Your task to perform on an android device: Go to display settings Image 0: 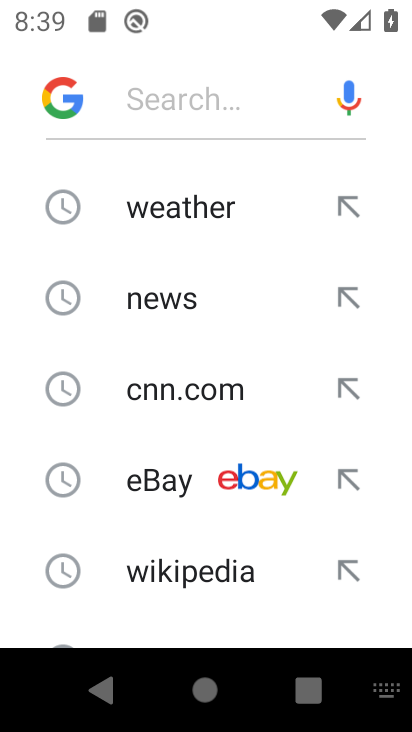
Step 0: press home button
Your task to perform on an android device: Go to display settings Image 1: 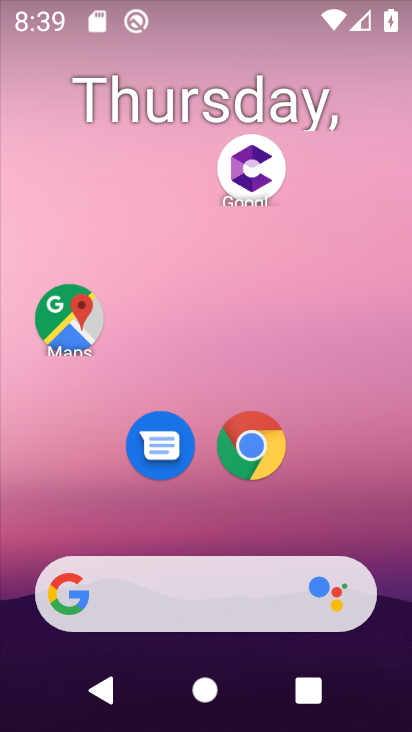
Step 1: drag from (188, 406) to (214, 58)
Your task to perform on an android device: Go to display settings Image 2: 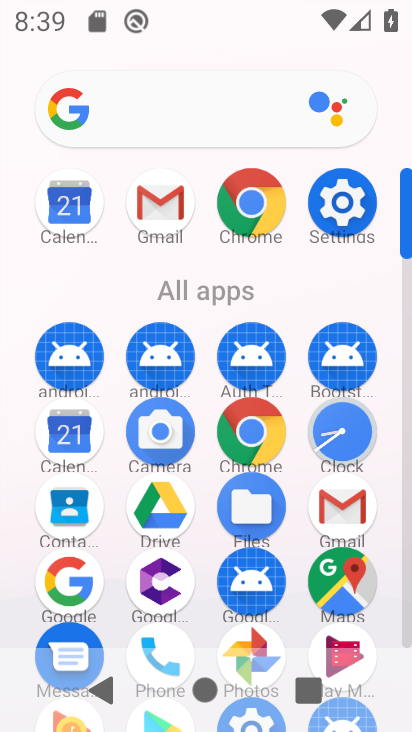
Step 2: click (355, 231)
Your task to perform on an android device: Go to display settings Image 3: 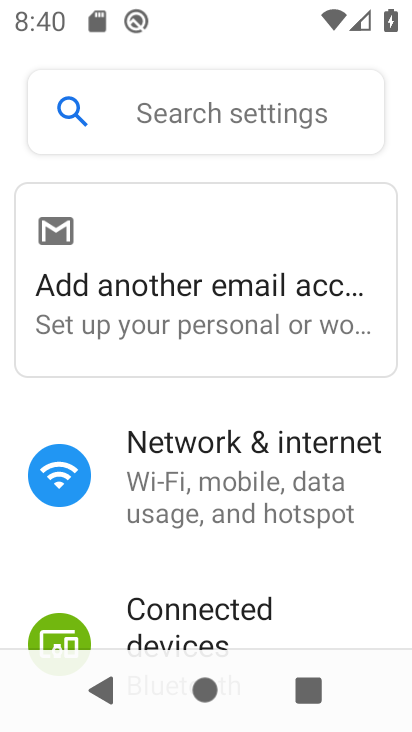
Step 3: drag from (229, 566) to (276, 130)
Your task to perform on an android device: Go to display settings Image 4: 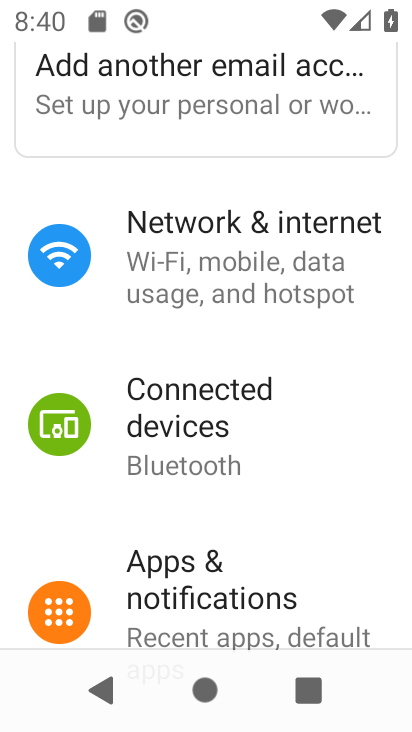
Step 4: drag from (226, 442) to (255, 79)
Your task to perform on an android device: Go to display settings Image 5: 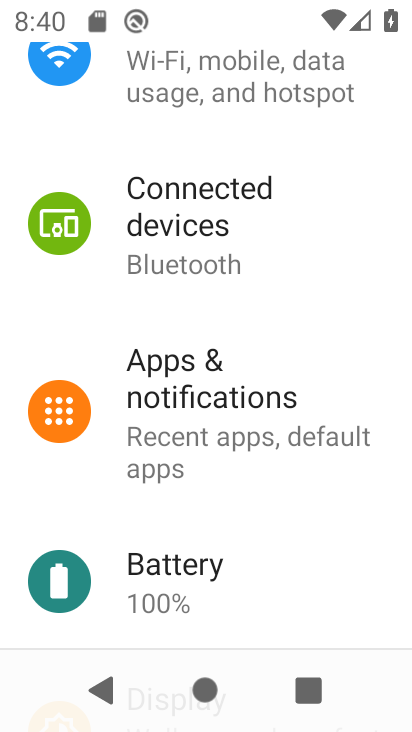
Step 5: drag from (200, 441) to (247, 121)
Your task to perform on an android device: Go to display settings Image 6: 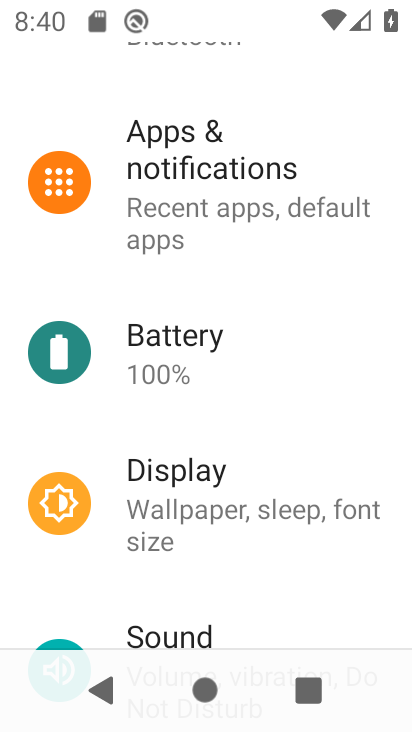
Step 6: click (196, 503)
Your task to perform on an android device: Go to display settings Image 7: 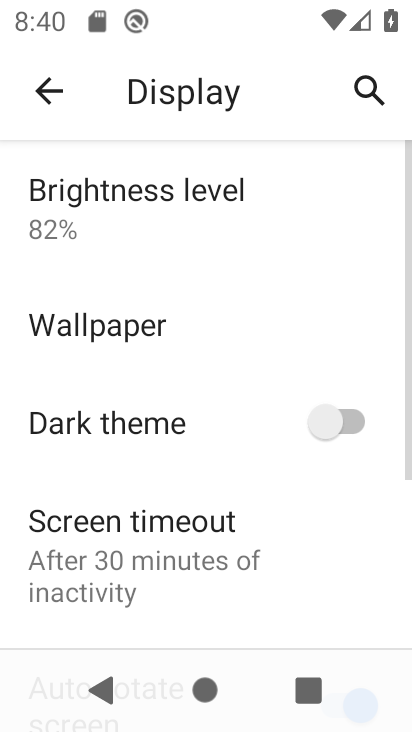
Step 7: task complete